Your task to perform on an android device: refresh tabs in the chrome app Image 0: 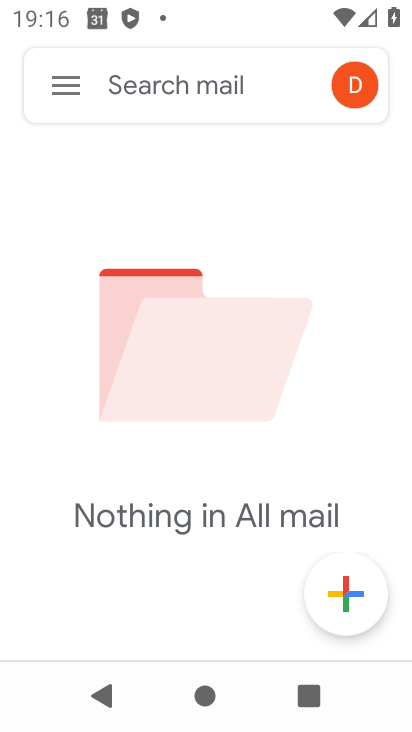
Step 0: press home button
Your task to perform on an android device: refresh tabs in the chrome app Image 1: 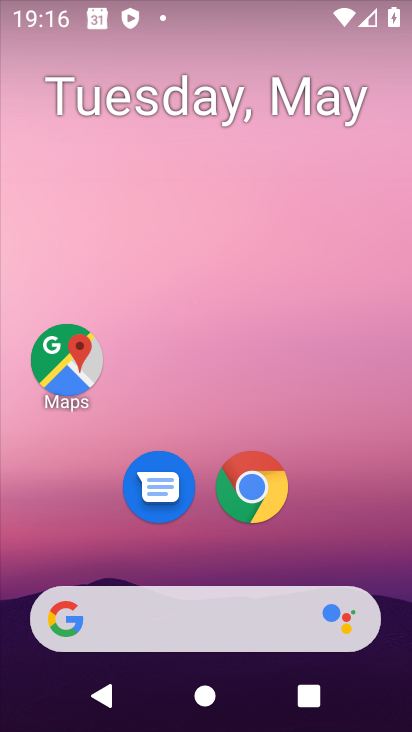
Step 1: click (255, 491)
Your task to perform on an android device: refresh tabs in the chrome app Image 2: 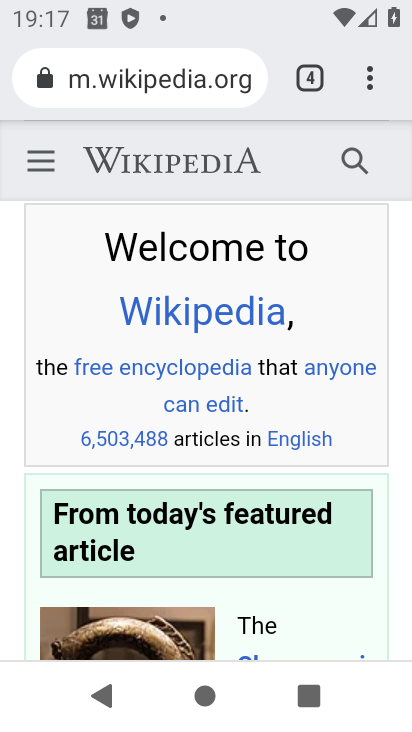
Step 2: click (368, 77)
Your task to perform on an android device: refresh tabs in the chrome app Image 3: 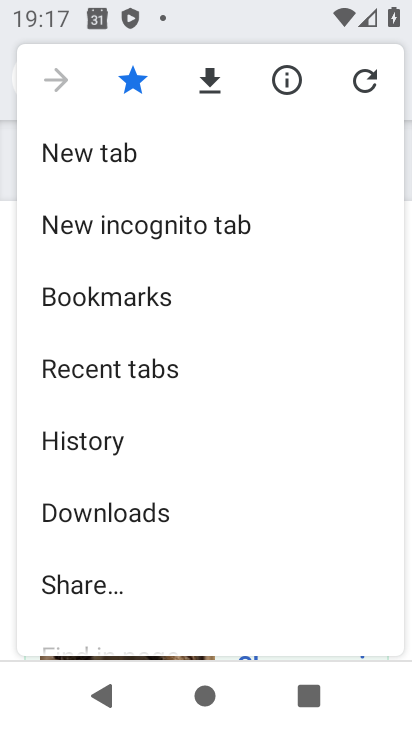
Step 3: click (368, 75)
Your task to perform on an android device: refresh tabs in the chrome app Image 4: 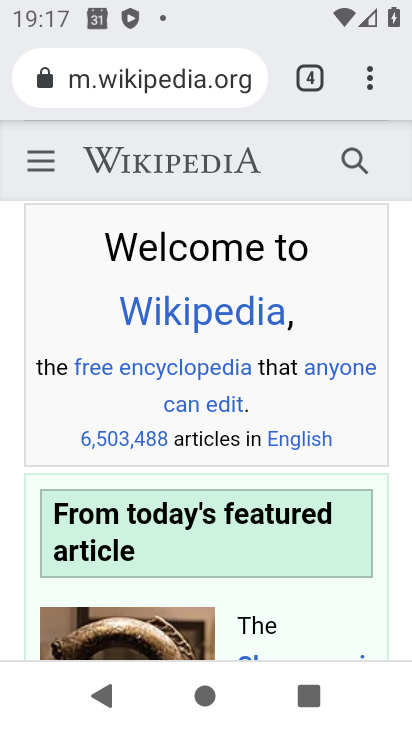
Step 4: task complete